Your task to perform on an android device: turn pop-ups off in chrome Image 0: 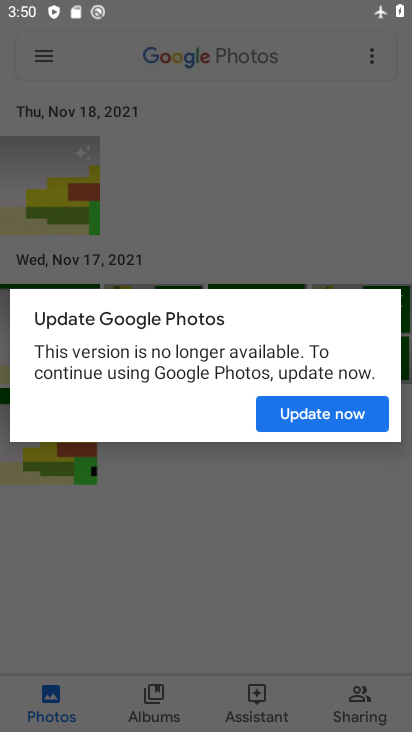
Step 0: press home button
Your task to perform on an android device: turn pop-ups off in chrome Image 1: 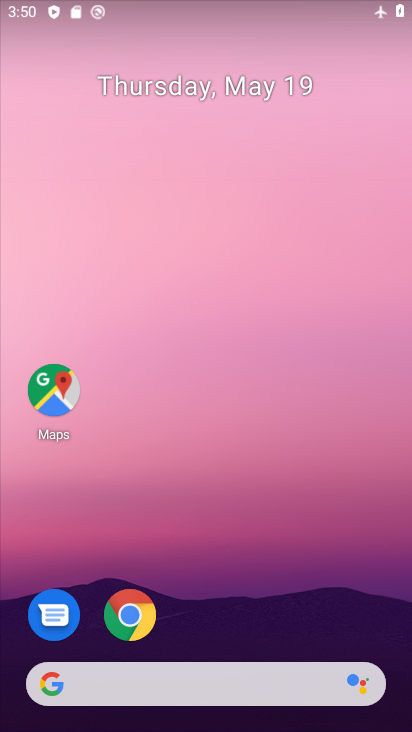
Step 1: drag from (238, 630) to (235, 594)
Your task to perform on an android device: turn pop-ups off in chrome Image 2: 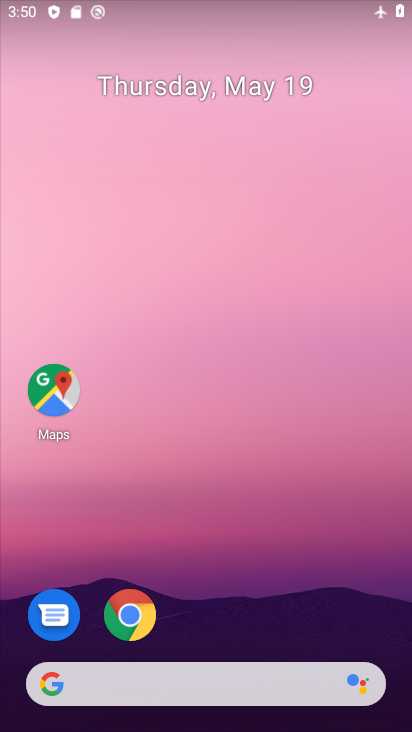
Step 2: click (132, 608)
Your task to perform on an android device: turn pop-ups off in chrome Image 3: 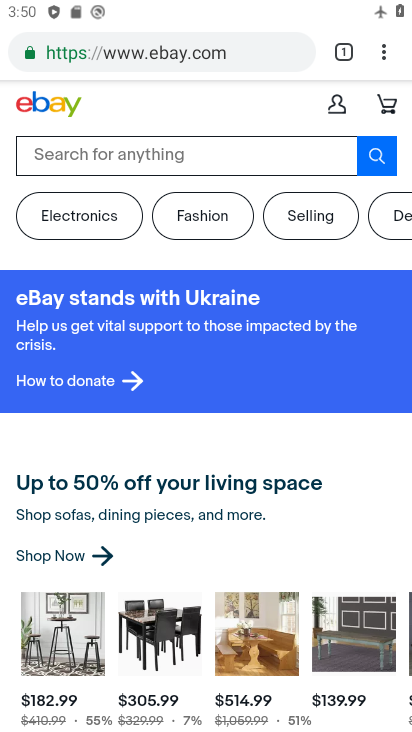
Step 3: drag from (385, 51) to (222, 560)
Your task to perform on an android device: turn pop-ups off in chrome Image 4: 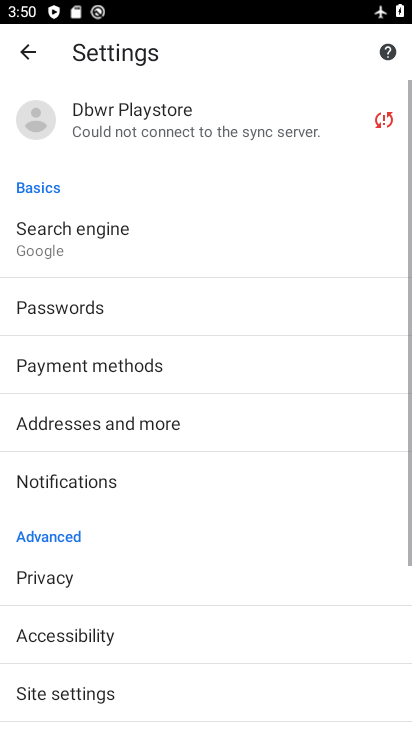
Step 4: drag from (222, 560) to (211, 310)
Your task to perform on an android device: turn pop-ups off in chrome Image 5: 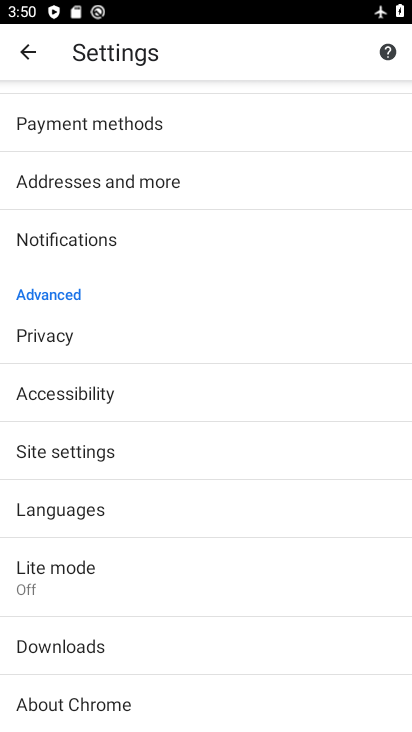
Step 5: click (51, 450)
Your task to perform on an android device: turn pop-ups off in chrome Image 6: 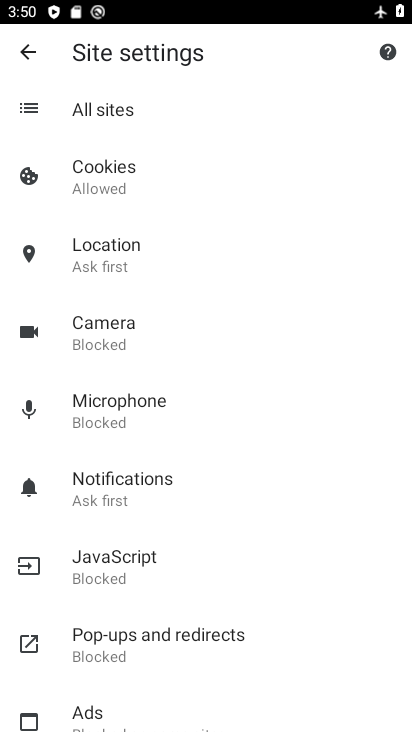
Step 6: click (113, 634)
Your task to perform on an android device: turn pop-ups off in chrome Image 7: 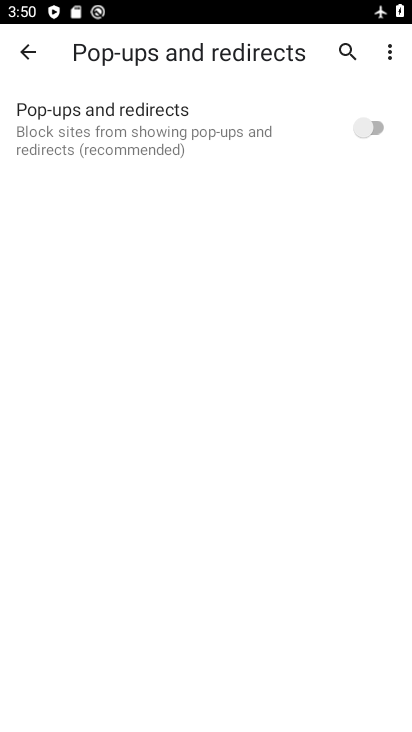
Step 7: task complete